Your task to perform on an android device: open the mobile data screen to see how much data has been used Image 0: 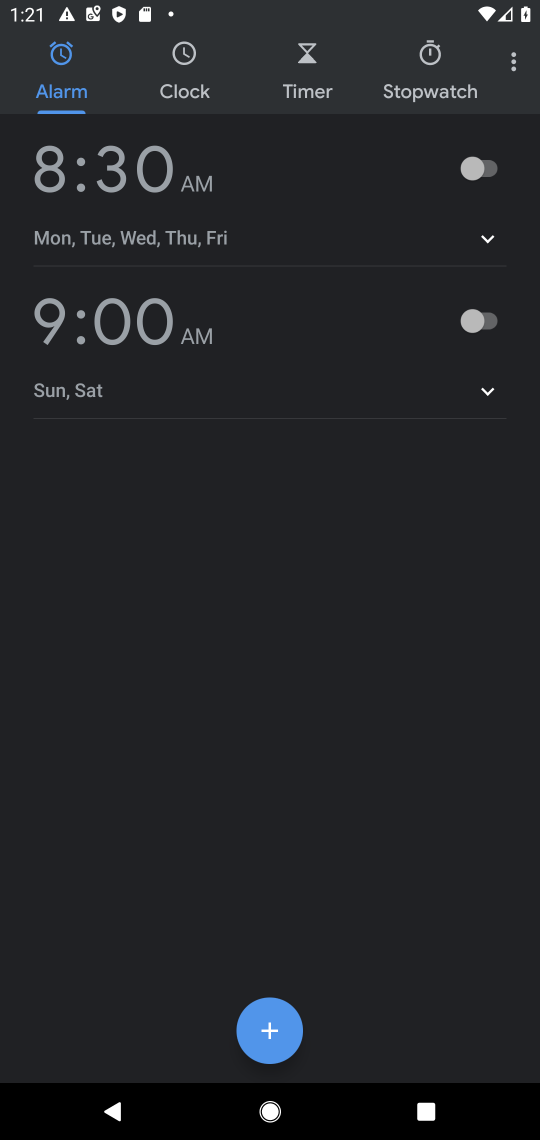
Step 0: press home button
Your task to perform on an android device: open the mobile data screen to see how much data has been used Image 1: 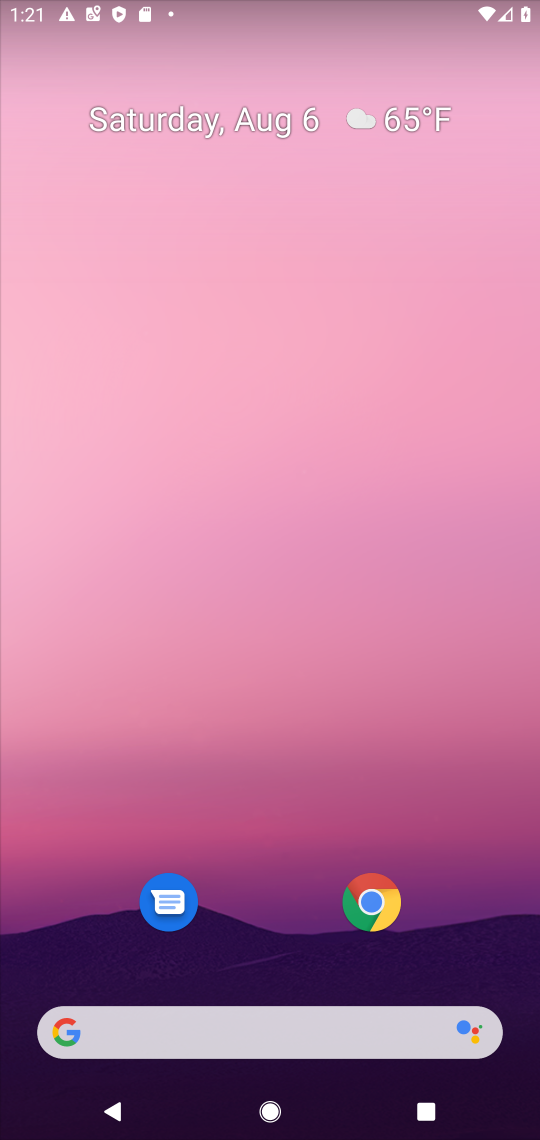
Step 1: drag from (273, 937) to (245, 293)
Your task to perform on an android device: open the mobile data screen to see how much data has been used Image 2: 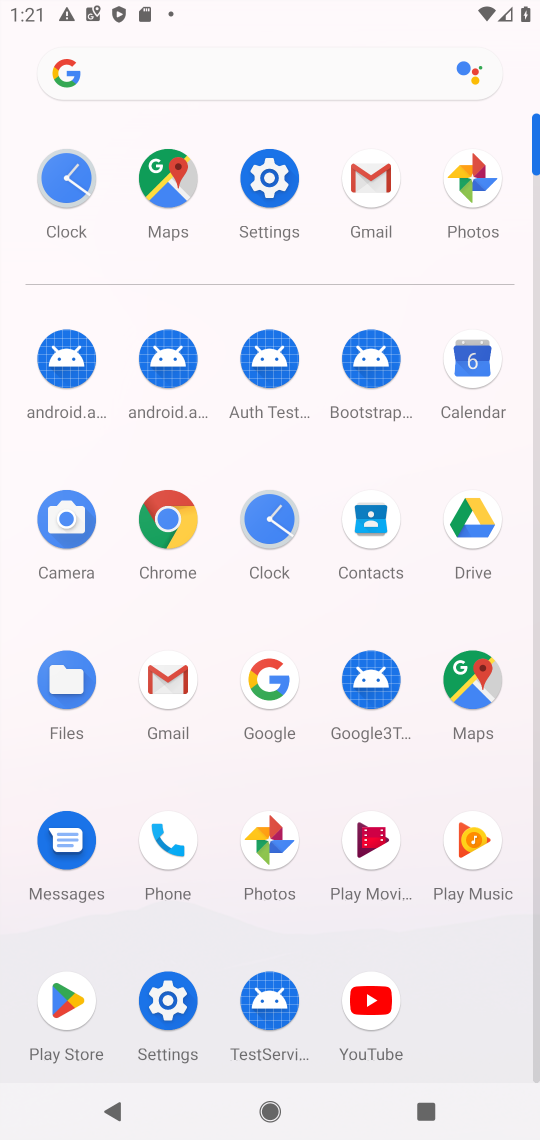
Step 2: click (264, 171)
Your task to perform on an android device: open the mobile data screen to see how much data has been used Image 3: 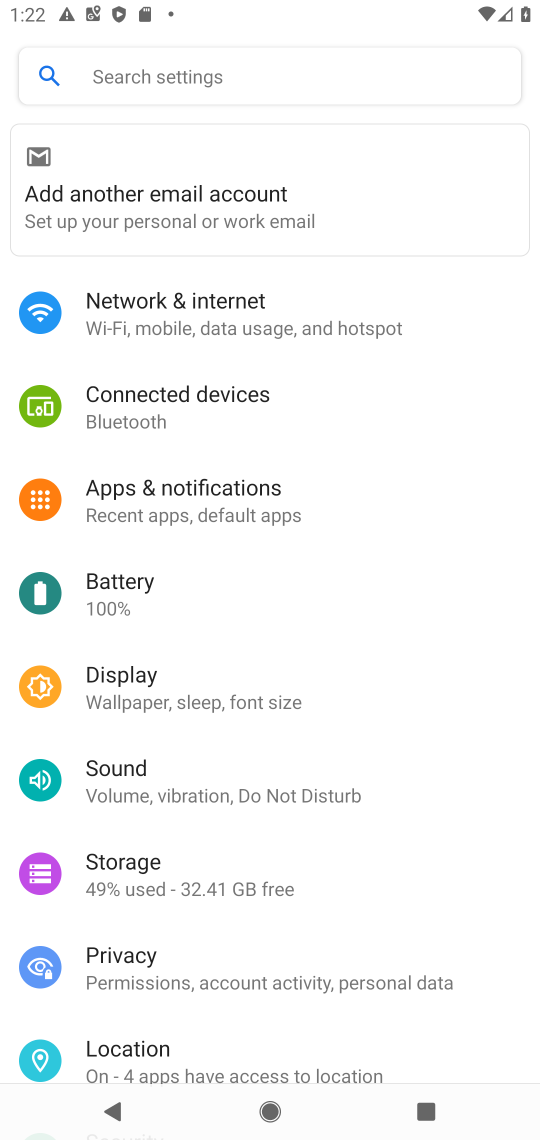
Step 3: click (185, 301)
Your task to perform on an android device: open the mobile data screen to see how much data has been used Image 4: 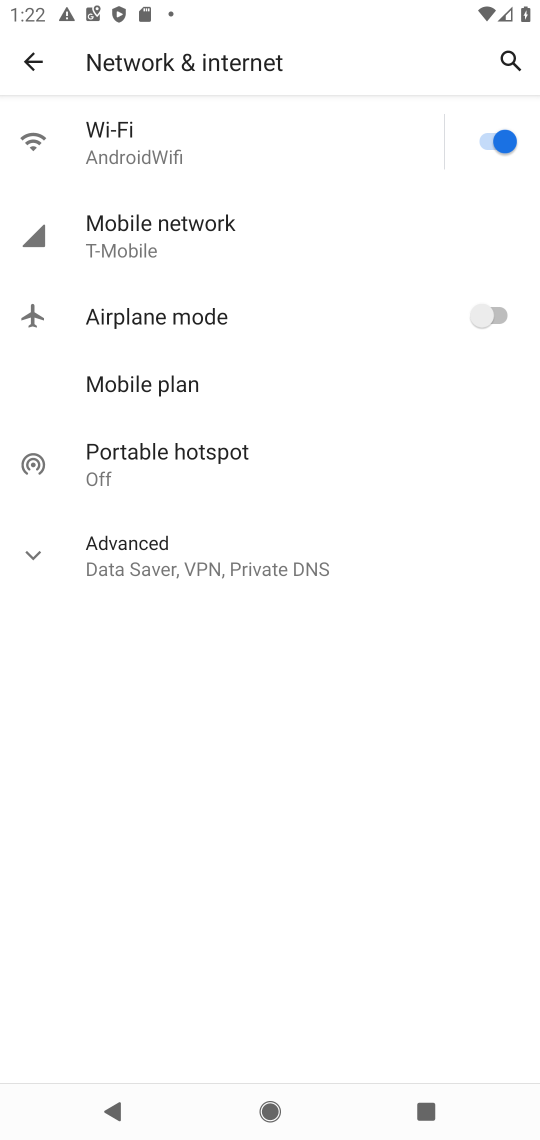
Step 4: click (167, 223)
Your task to perform on an android device: open the mobile data screen to see how much data has been used Image 5: 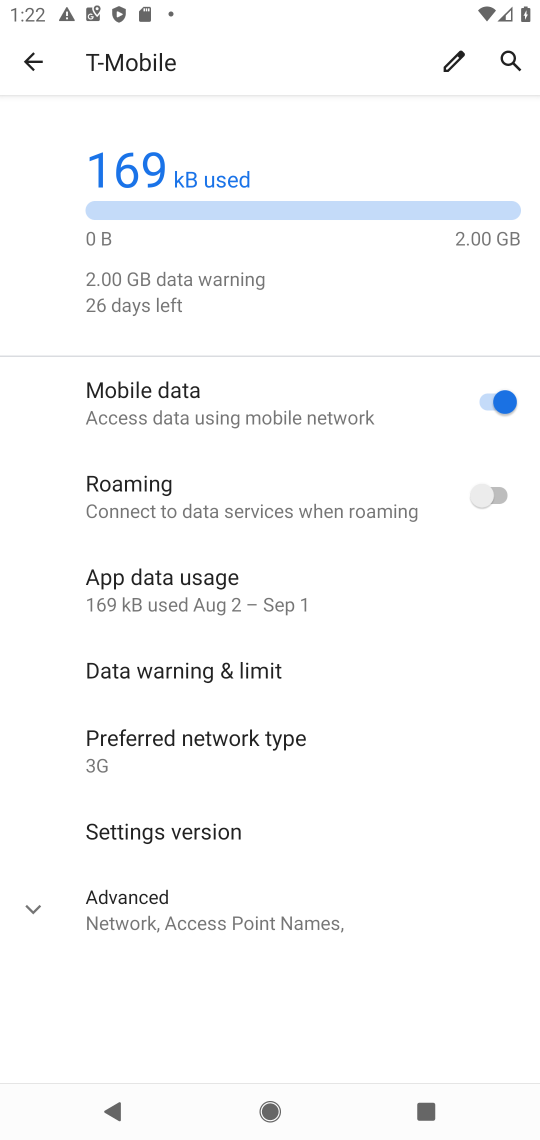
Step 5: task complete